Your task to perform on an android device: change the upload size in google photos Image 0: 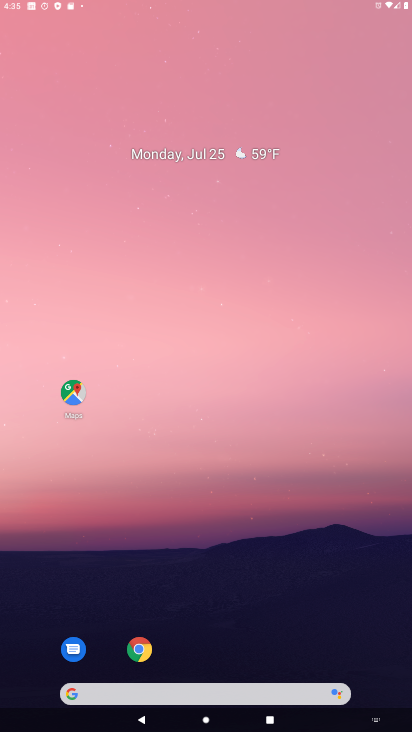
Step 0: click (232, 148)
Your task to perform on an android device: change the upload size in google photos Image 1: 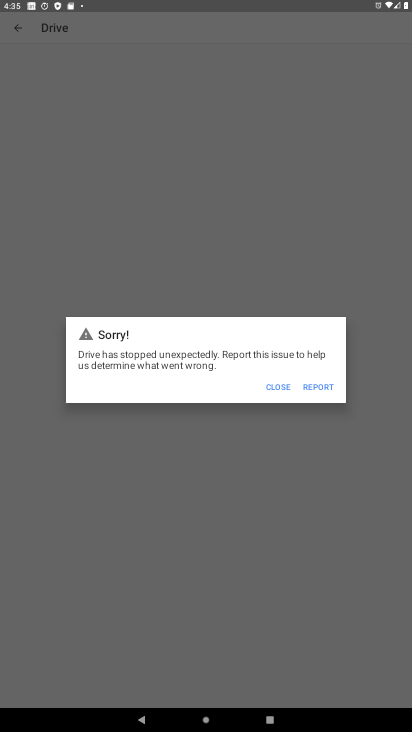
Step 1: press home button
Your task to perform on an android device: change the upload size in google photos Image 2: 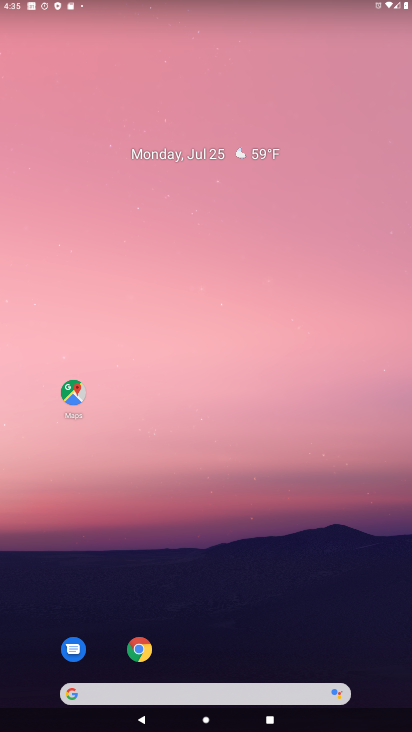
Step 2: drag from (252, 651) to (158, 147)
Your task to perform on an android device: change the upload size in google photos Image 3: 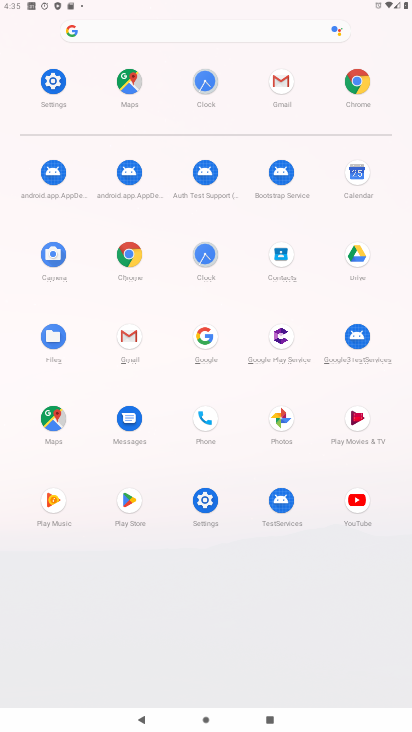
Step 3: click (276, 421)
Your task to perform on an android device: change the upload size in google photos Image 4: 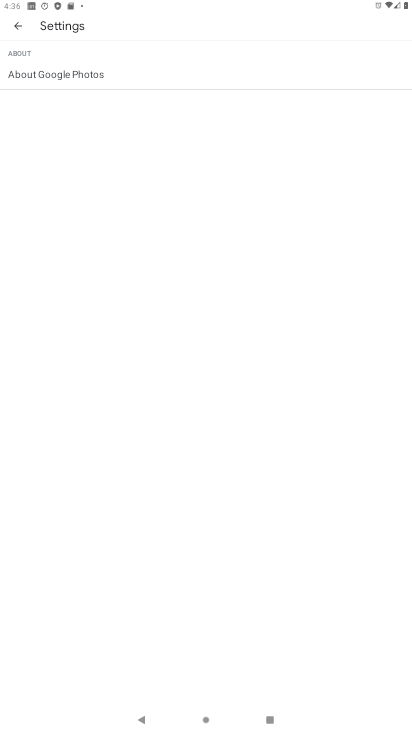
Step 4: click (18, 29)
Your task to perform on an android device: change the upload size in google photos Image 5: 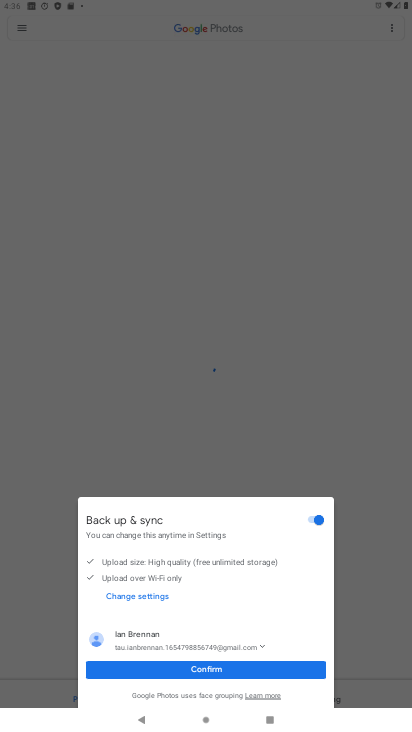
Step 5: click (223, 673)
Your task to perform on an android device: change the upload size in google photos Image 6: 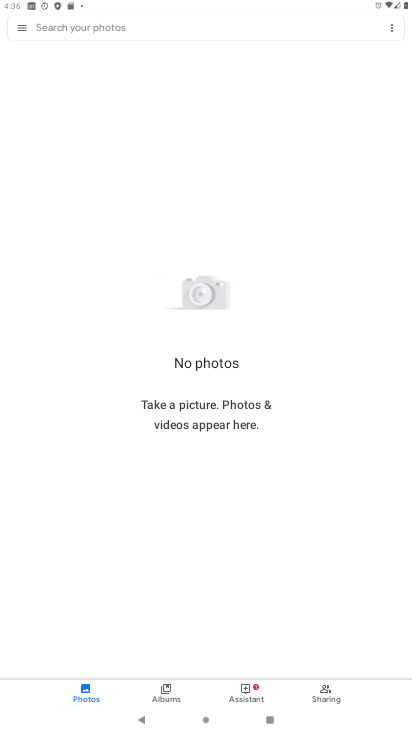
Step 6: click (28, 39)
Your task to perform on an android device: change the upload size in google photos Image 7: 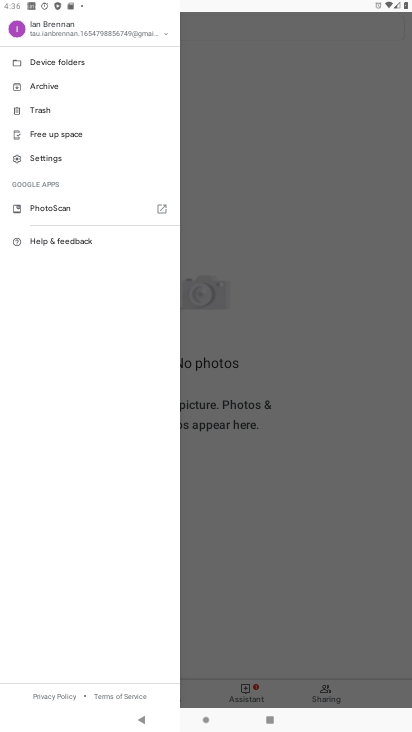
Step 7: click (64, 148)
Your task to perform on an android device: change the upload size in google photos Image 8: 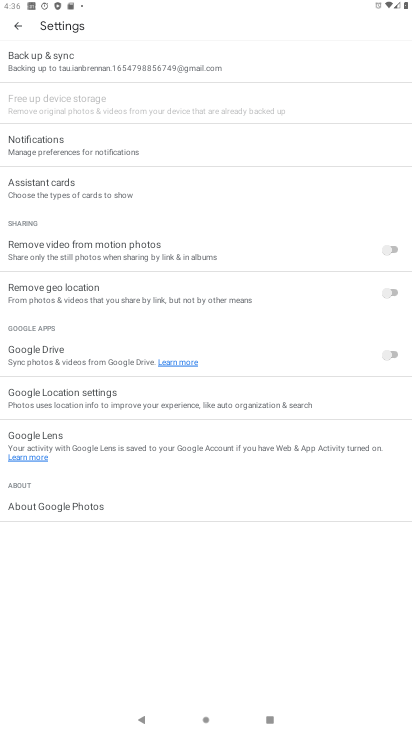
Step 8: click (104, 54)
Your task to perform on an android device: change the upload size in google photos Image 9: 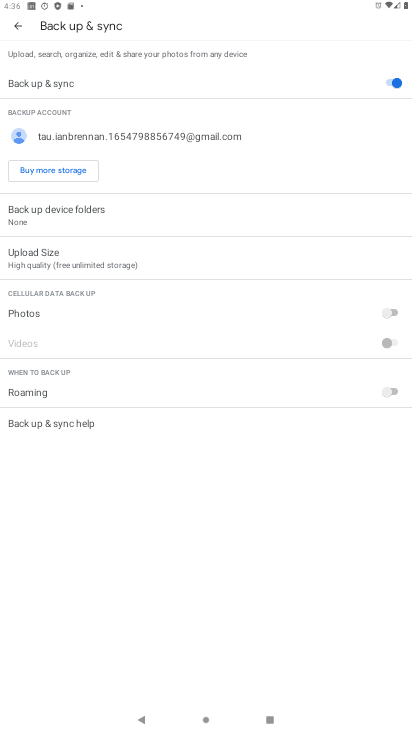
Step 9: click (125, 254)
Your task to perform on an android device: change the upload size in google photos Image 10: 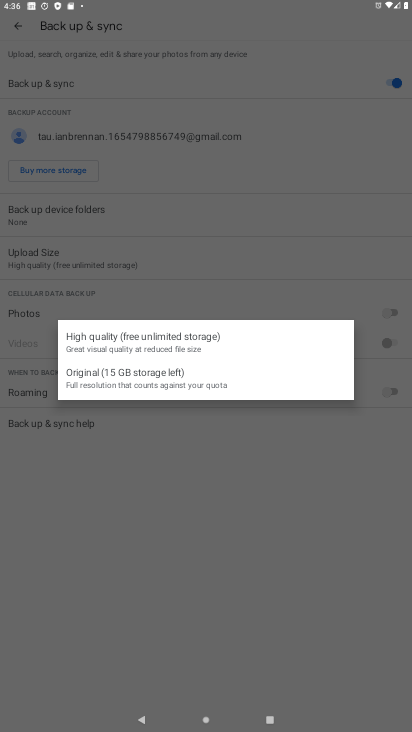
Step 10: click (182, 338)
Your task to perform on an android device: change the upload size in google photos Image 11: 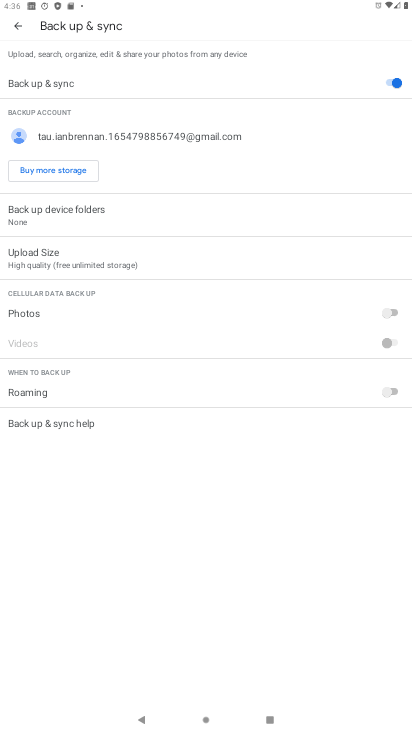
Step 11: task complete